Your task to perform on an android device: Do I have any events tomorrow? Image 0: 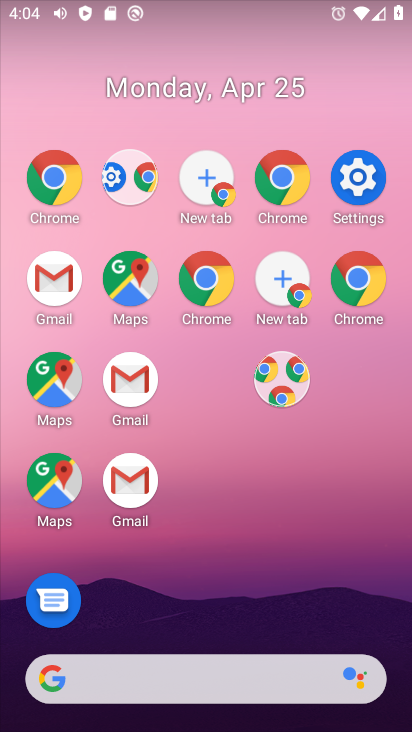
Step 0: drag from (217, 662) to (187, 158)
Your task to perform on an android device: Do I have any events tomorrow? Image 1: 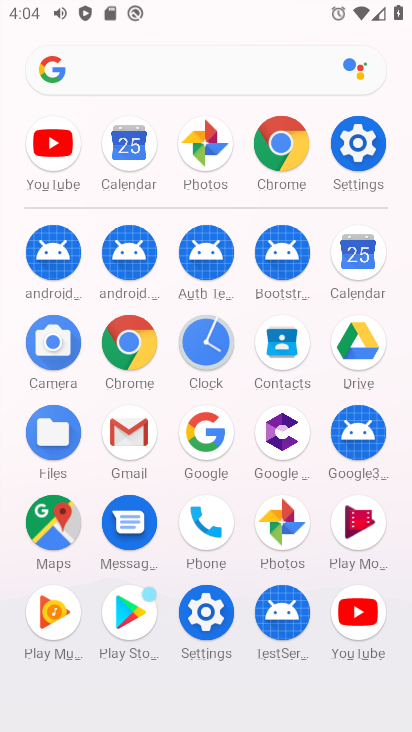
Step 1: click (355, 259)
Your task to perform on an android device: Do I have any events tomorrow? Image 2: 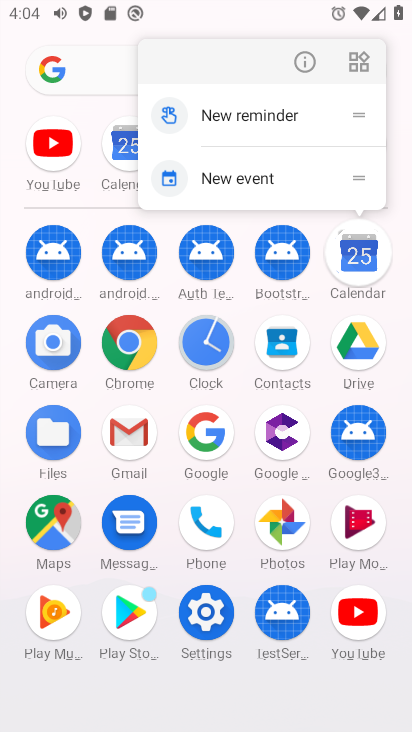
Step 2: click (355, 259)
Your task to perform on an android device: Do I have any events tomorrow? Image 3: 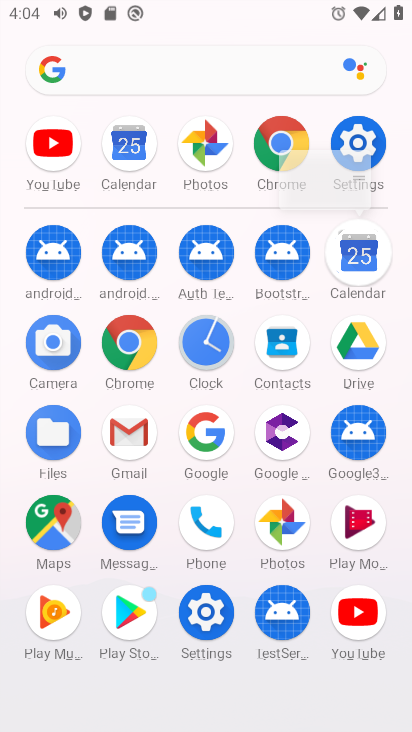
Step 3: click (355, 259)
Your task to perform on an android device: Do I have any events tomorrow? Image 4: 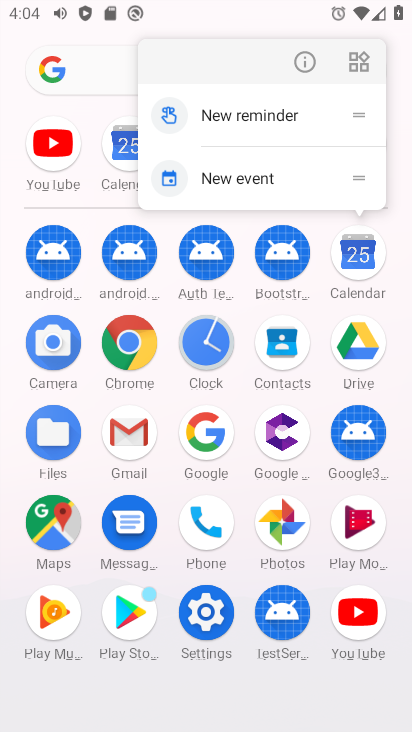
Step 4: click (355, 259)
Your task to perform on an android device: Do I have any events tomorrow? Image 5: 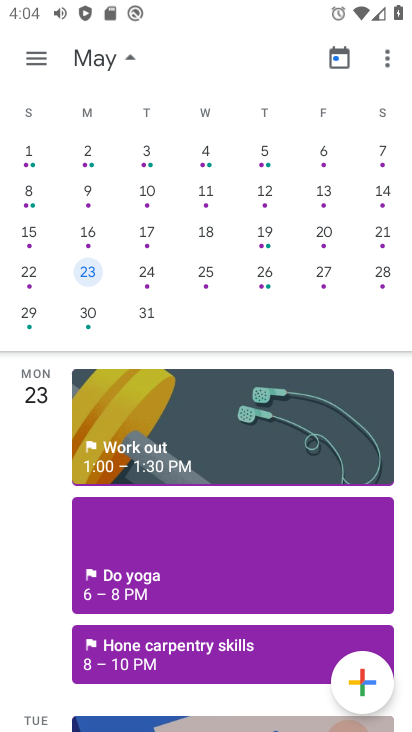
Step 5: task complete